Your task to perform on an android device: Open Youtube and go to the subscriptions tab Image 0: 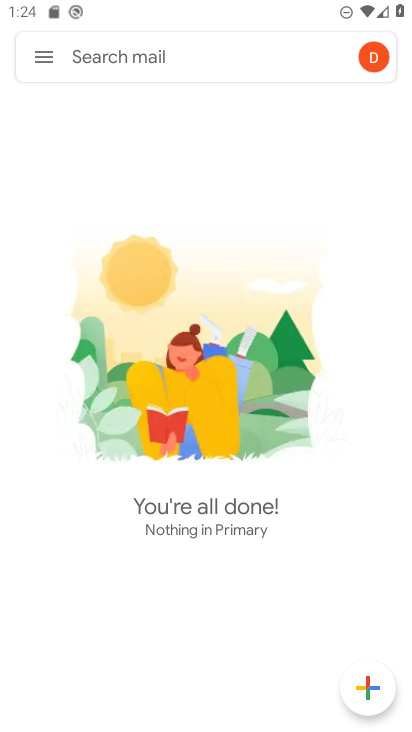
Step 0: press back button
Your task to perform on an android device: Open Youtube and go to the subscriptions tab Image 1: 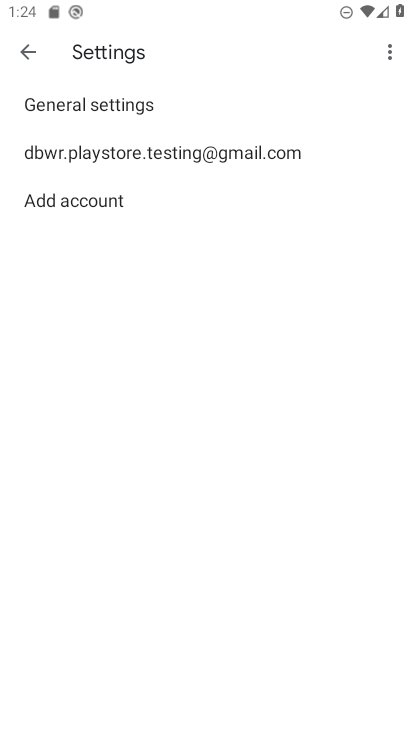
Step 1: press back button
Your task to perform on an android device: Open Youtube and go to the subscriptions tab Image 2: 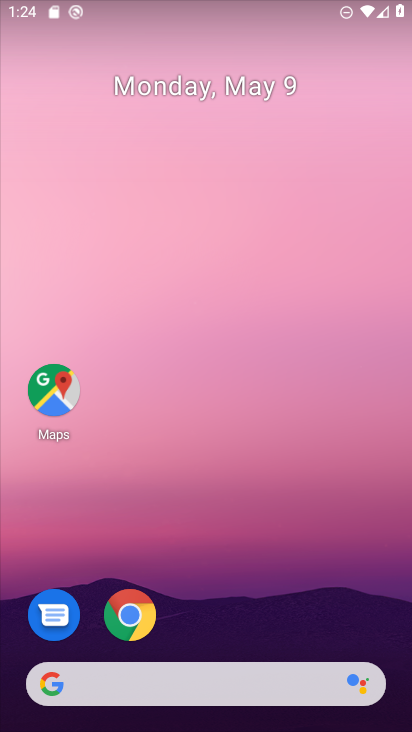
Step 2: drag from (263, 604) to (242, 118)
Your task to perform on an android device: Open Youtube and go to the subscriptions tab Image 3: 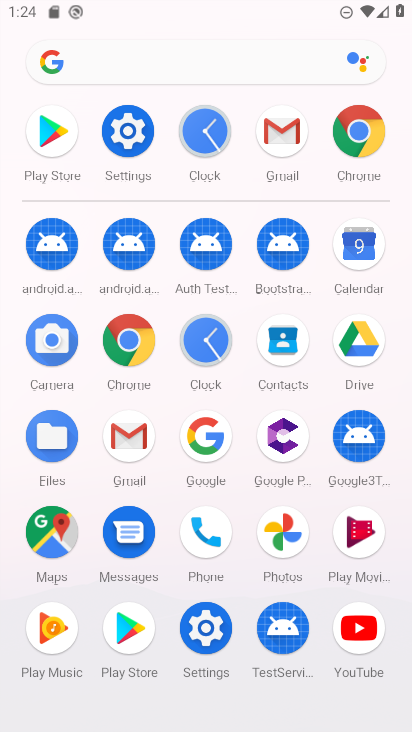
Step 3: click (360, 631)
Your task to perform on an android device: Open Youtube and go to the subscriptions tab Image 4: 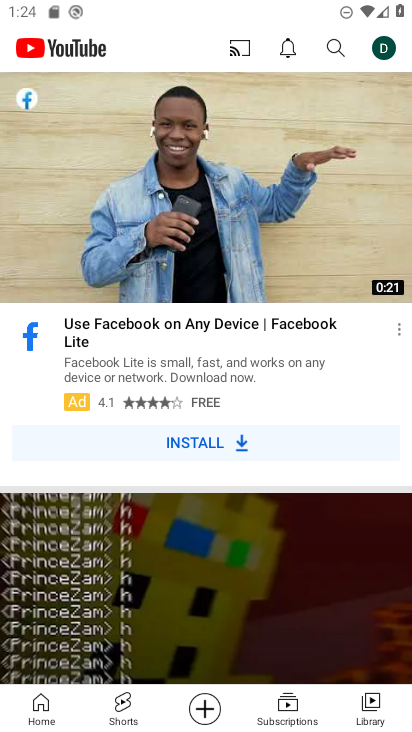
Step 4: click (288, 704)
Your task to perform on an android device: Open Youtube and go to the subscriptions tab Image 5: 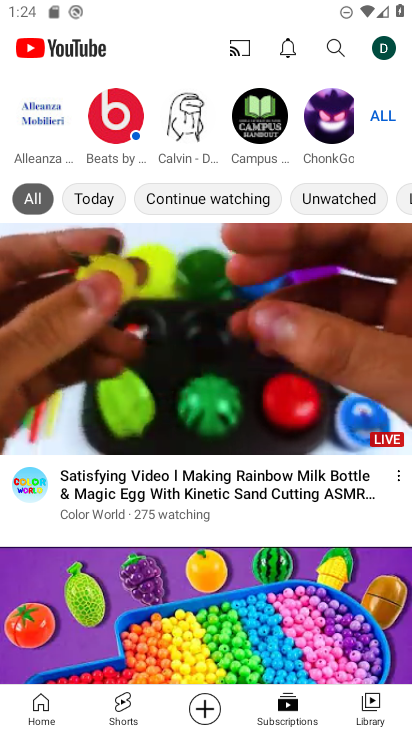
Step 5: task complete